Your task to perform on an android device: turn on javascript in the chrome app Image 0: 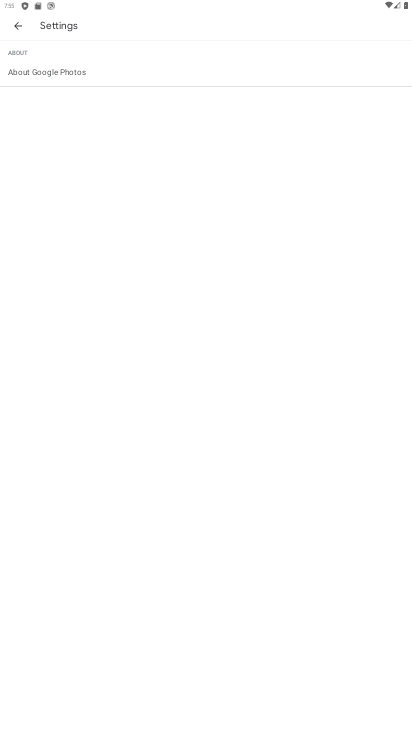
Step 0: press home button
Your task to perform on an android device: turn on javascript in the chrome app Image 1: 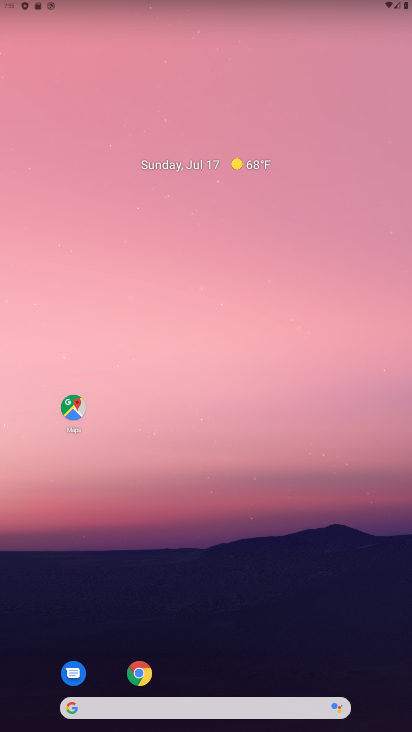
Step 1: drag from (247, 645) to (282, 0)
Your task to perform on an android device: turn on javascript in the chrome app Image 2: 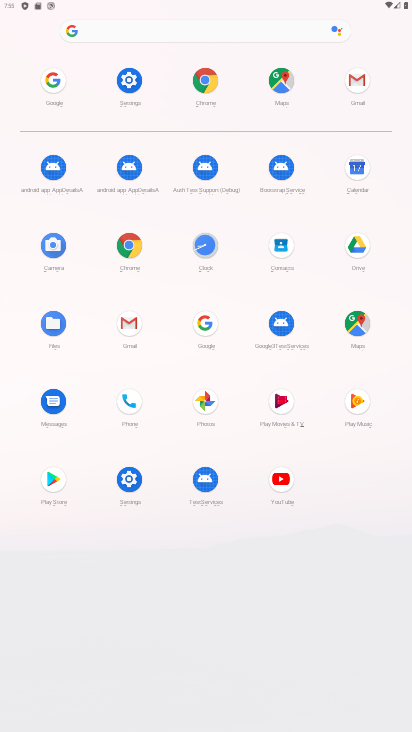
Step 2: click (203, 87)
Your task to perform on an android device: turn on javascript in the chrome app Image 3: 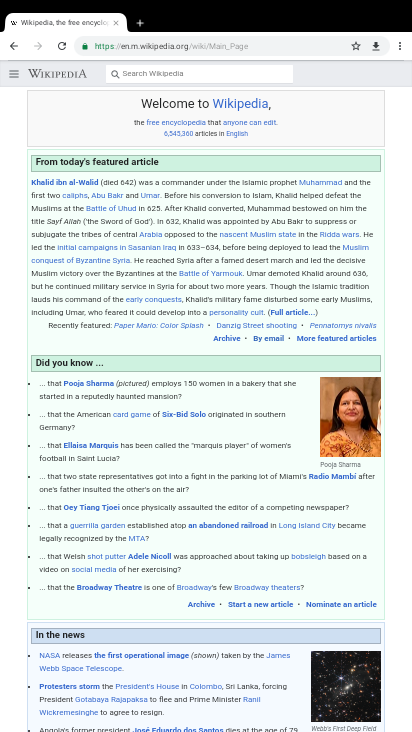
Step 3: drag from (397, 40) to (314, 317)
Your task to perform on an android device: turn on javascript in the chrome app Image 4: 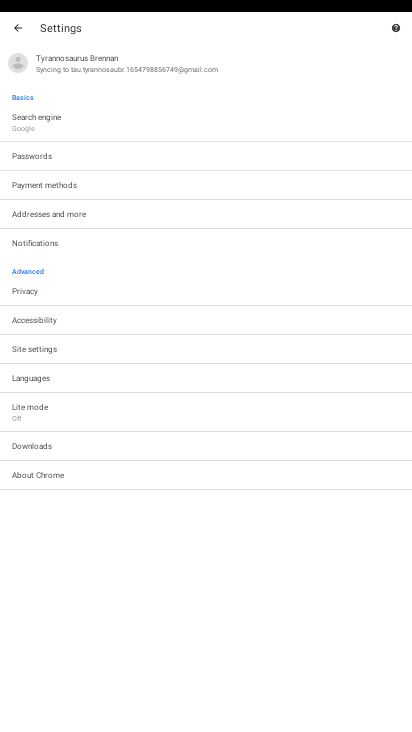
Step 4: click (78, 348)
Your task to perform on an android device: turn on javascript in the chrome app Image 5: 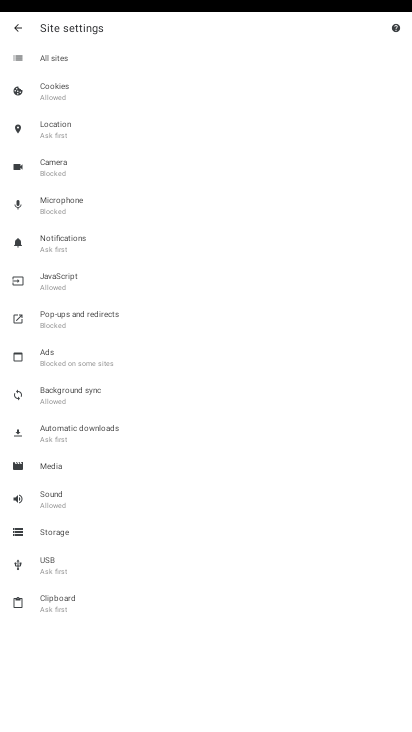
Step 5: click (77, 275)
Your task to perform on an android device: turn on javascript in the chrome app Image 6: 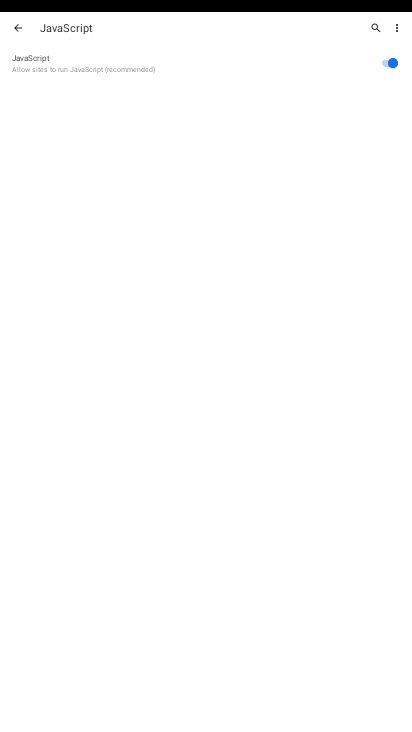
Step 6: task complete